Your task to perform on an android device: stop showing notifications on the lock screen Image 0: 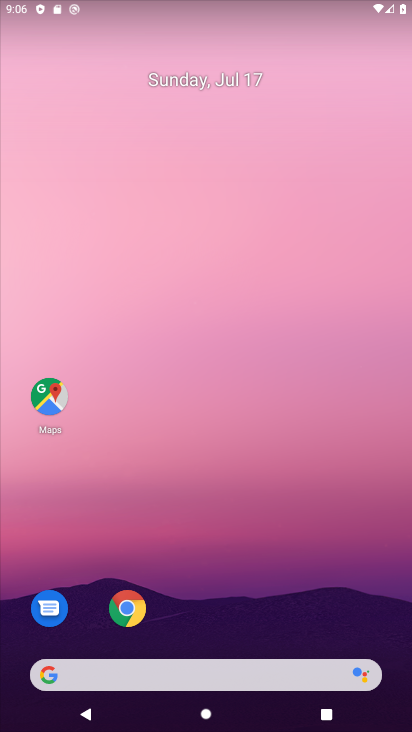
Step 0: drag from (216, 638) to (333, 12)
Your task to perform on an android device: stop showing notifications on the lock screen Image 1: 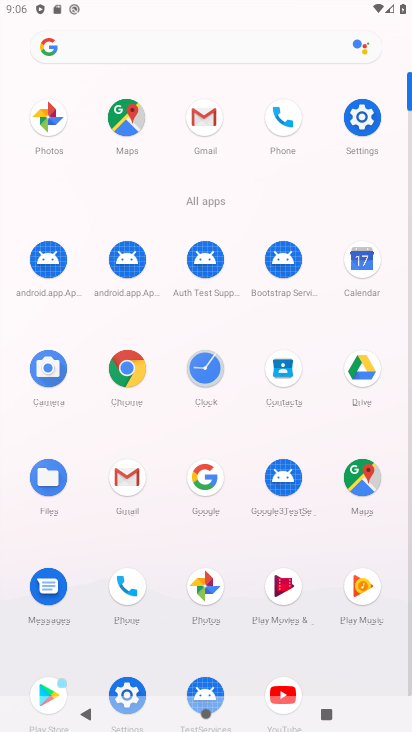
Step 1: click (138, 701)
Your task to perform on an android device: stop showing notifications on the lock screen Image 2: 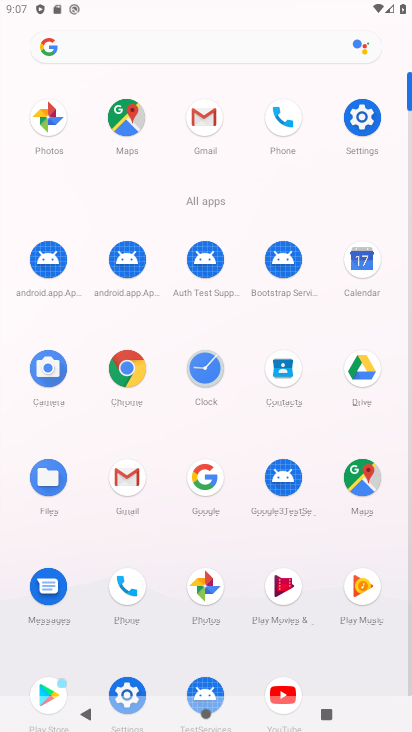
Step 2: click (132, 686)
Your task to perform on an android device: stop showing notifications on the lock screen Image 3: 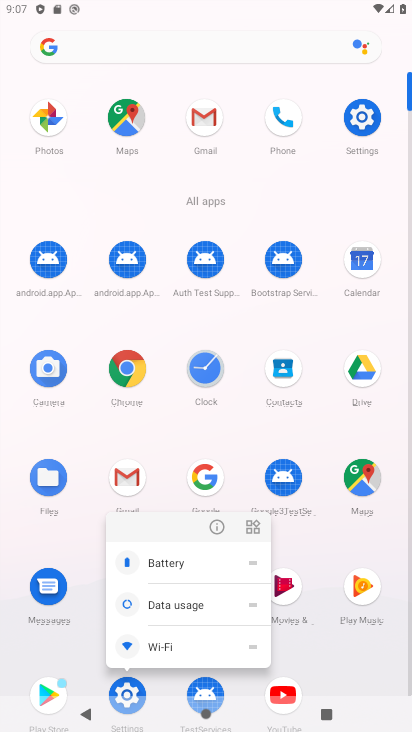
Step 3: click (127, 690)
Your task to perform on an android device: stop showing notifications on the lock screen Image 4: 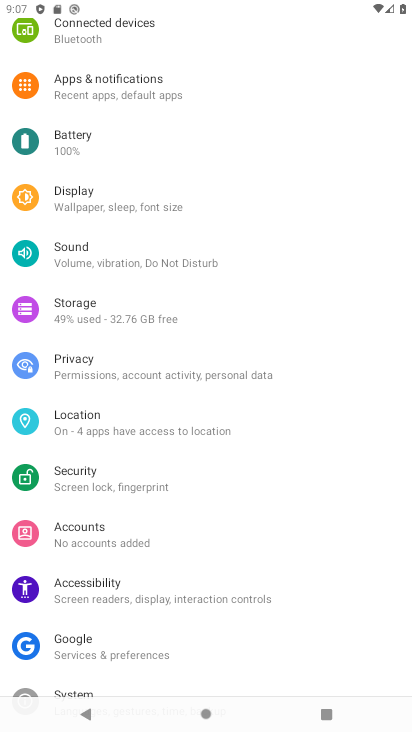
Step 4: click (181, 83)
Your task to perform on an android device: stop showing notifications on the lock screen Image 5: 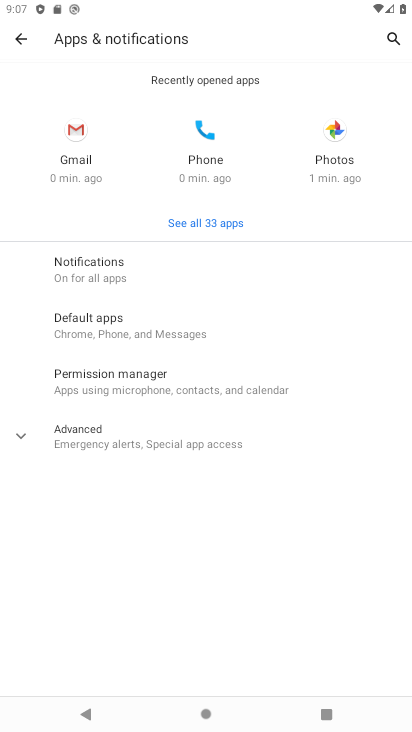
Step 5: click (131, 273)
Your task to perform on an android device: stop showing notifications on the lock screen Image 6: 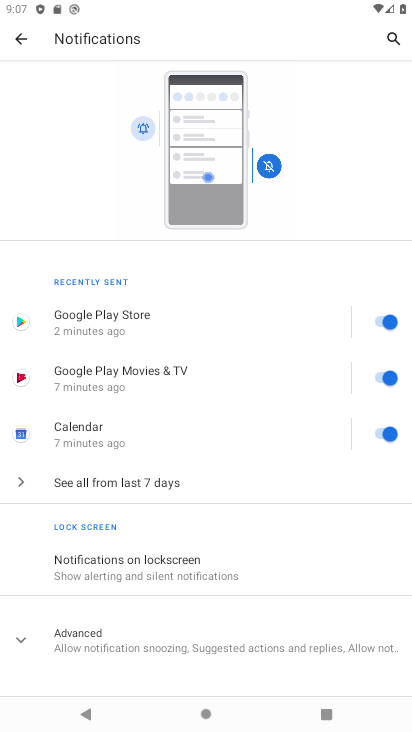
Step 6: click (247, 570)
Your task to perform on an android device: stop showing notifications on the lock screen Image 7: 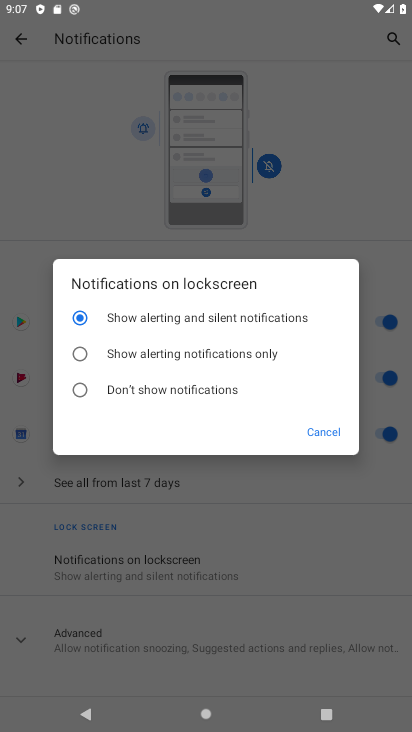
Step 7: click (190, 403)
Your task to perform on an android device: stop showing notifications on the lock screen Image 8: 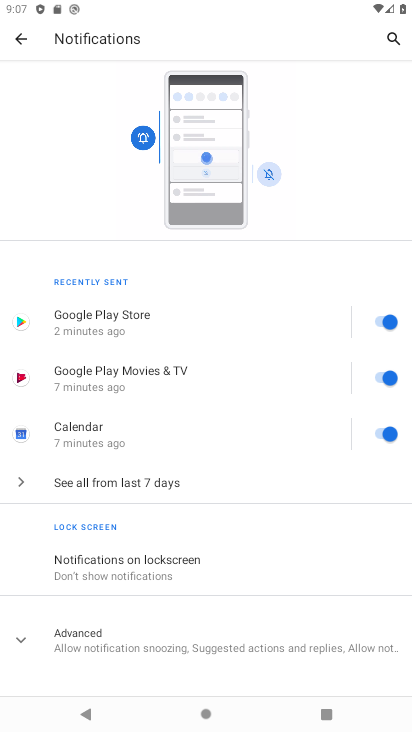
Step 8: task complete